Your task to perform on an android device: Open display settings Image 0: 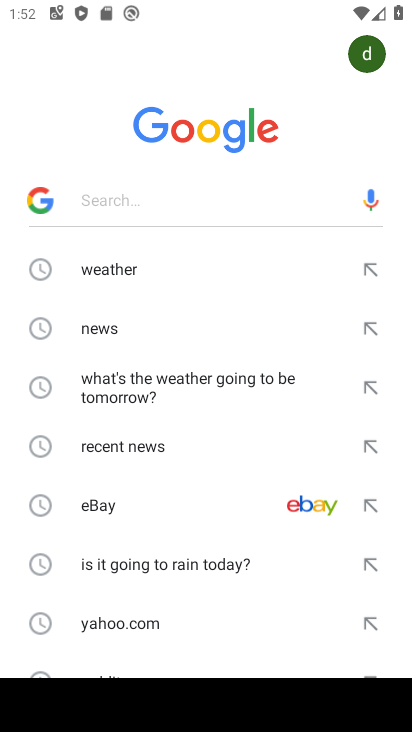
Step 0: press home button
Your task to perform on an android device: Open display settings Image 1: 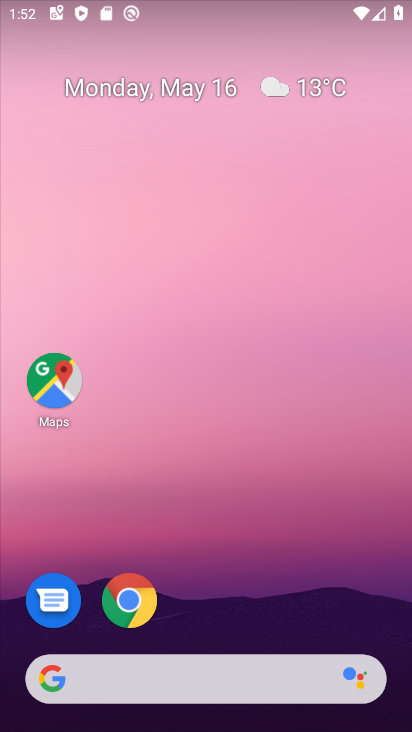
Step 1: drag from (248, 638) to (238, 0)
Your task to perform on an android device: Open display settings Image 2: 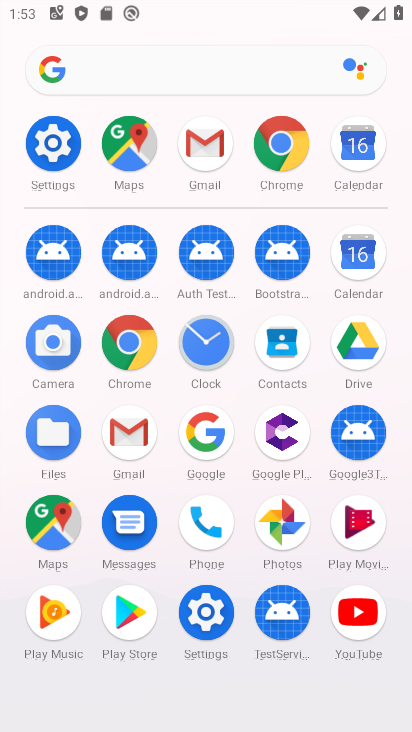
Step 2: click (40, 134)
Your task to perform on an android device: Open display settings Image 3: 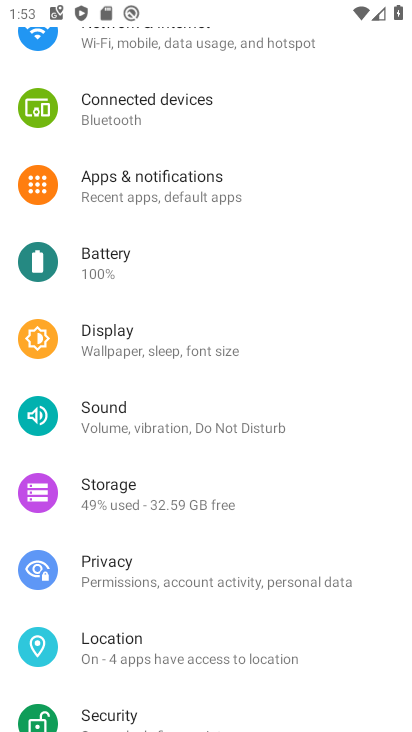
Step 3: click (161, 331)
Your task to perform on an android device: Open display settings Image 4: 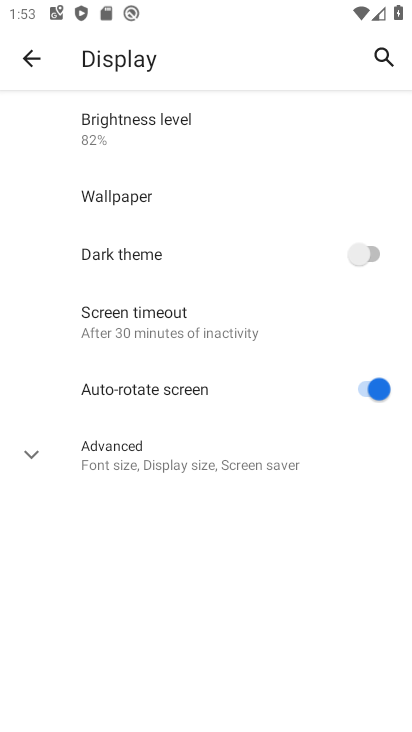
Step 4: task complete